Your task to perform on an android device: Open my contact list Image 0: 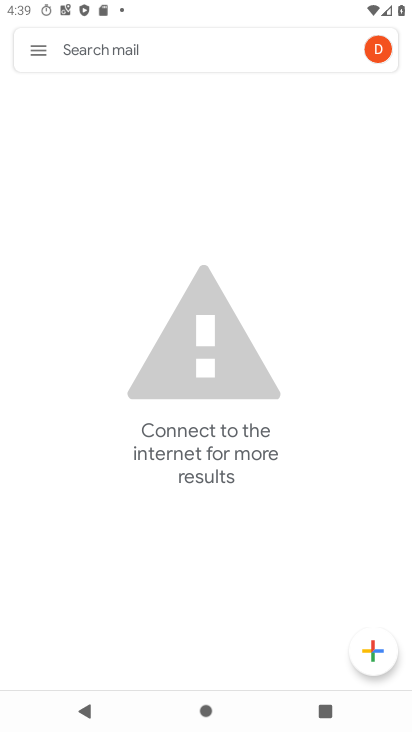
Step 0: press home button
Your task to perform on an android device: Open my contact list Image 1: 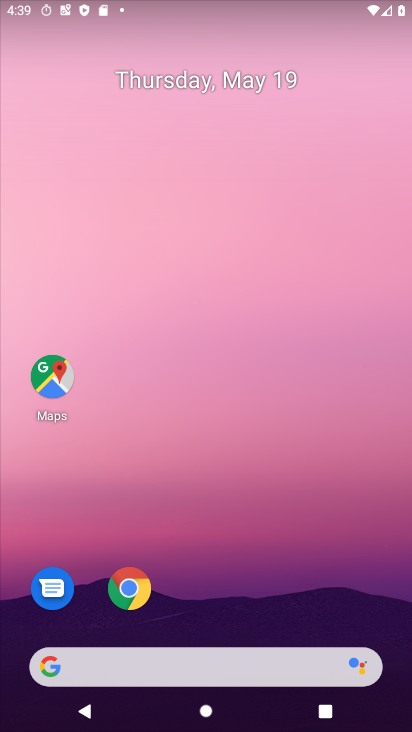
Step 1: drag from (202, 566) to (256, 18)
Your task to perform on an android device: Open my contact list Image 2: 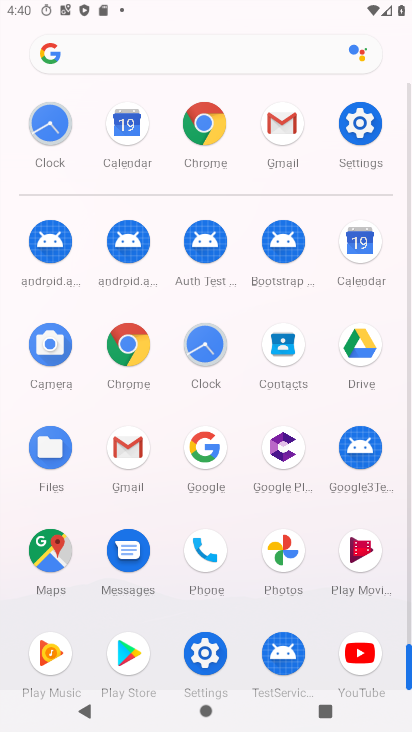
Step 2: click (205, 653)
Your task to perform on an android device: Open my contact list Image 3: 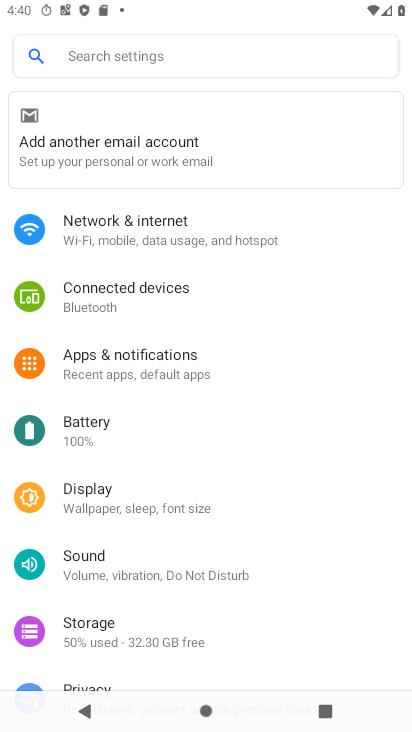
Step 3: press home button
Your task to perform on an android device: Open my contact list Image 4: 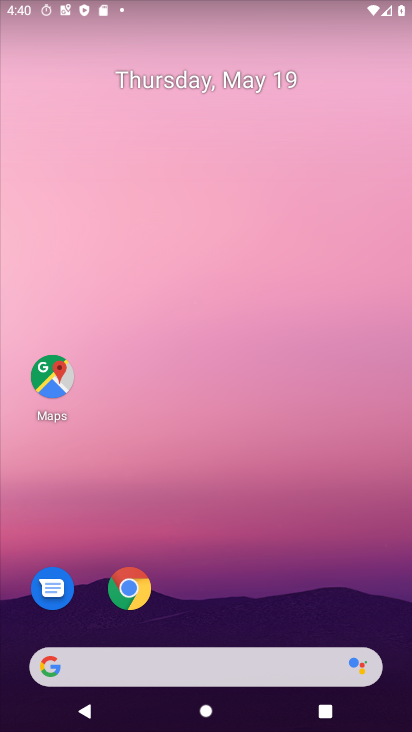
Step 4: drag from (235, 383) to (274, 77)
Your task to perform on an android device: Open my contact list Image 5: 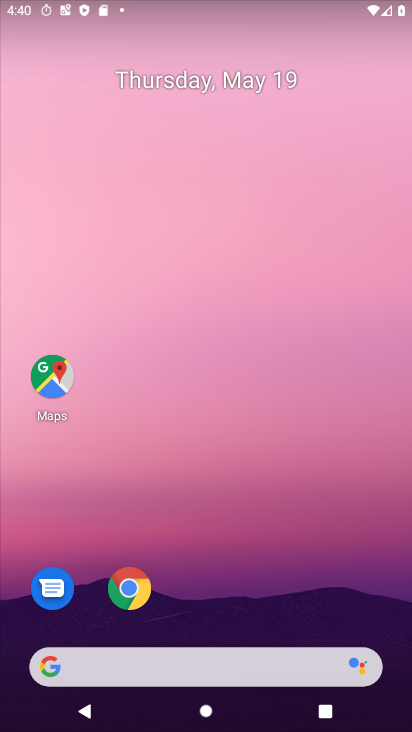
Step 5: drag from (192, 614) to (245, 68)
Your task to perform on an android device: Open my contact list Image 6: 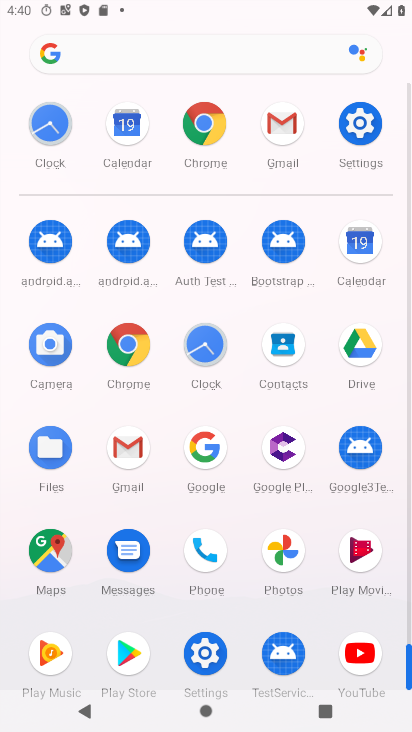
Step 6: click (291, 364)
Your task to perform on an android device: Open my contact list Image 7: 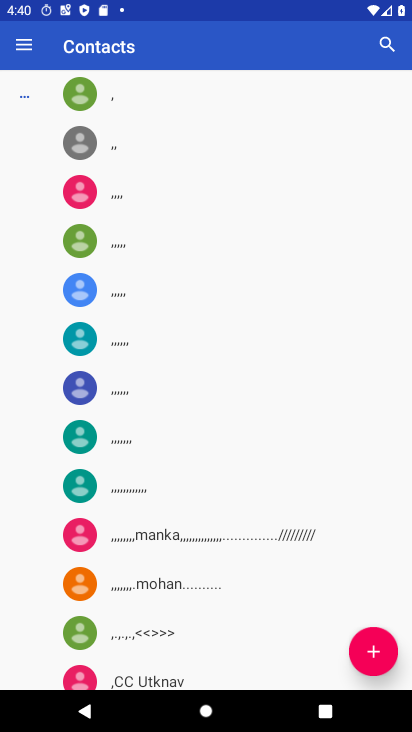
Step 7: task complete